Your task to perform on an android device: Open the calendar and show me this week's events Image 0: 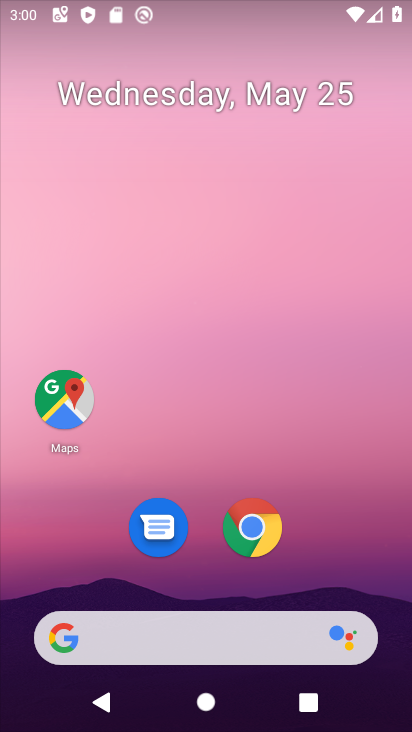
Step 0: click (308, 7)
Your task to perform on an android device: Open the calendar and show me this week's events Image 1: 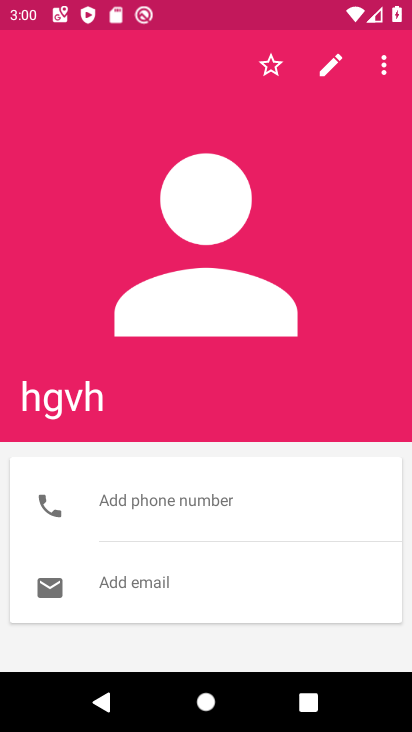
Step 1: press home button
Your task to perform on an android device: Open the calendar and show me this week's events Image 2: 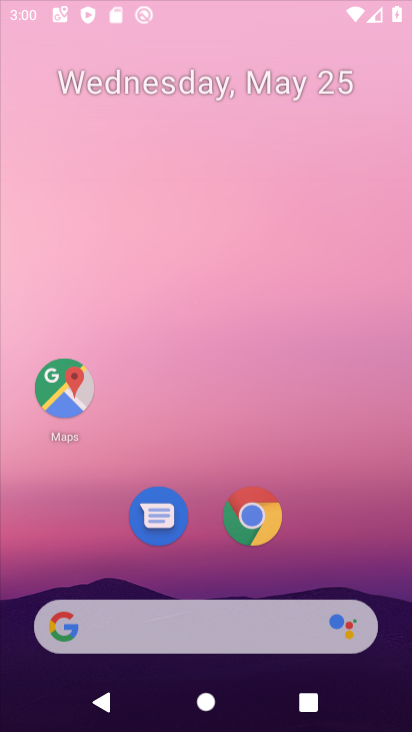
Step 2: drag from (213, 541) to (272, 83)
Your task to perform on an android device: Open the calendar and show me this week's events Image 3: 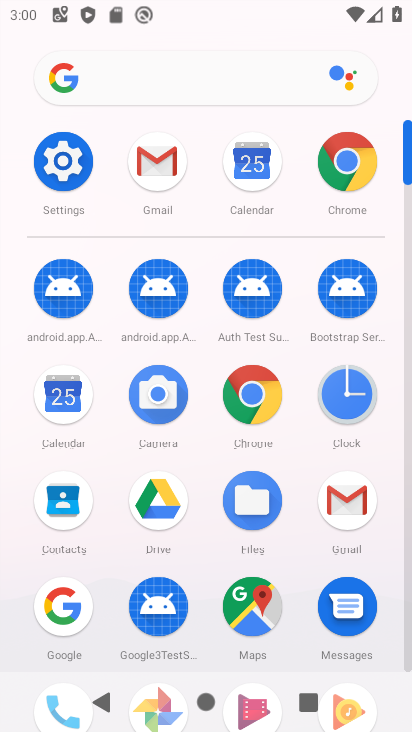
Step 3: click (255, 159)
Your task to perform on an android device: Open the calendar and show me this week's events Image 4: 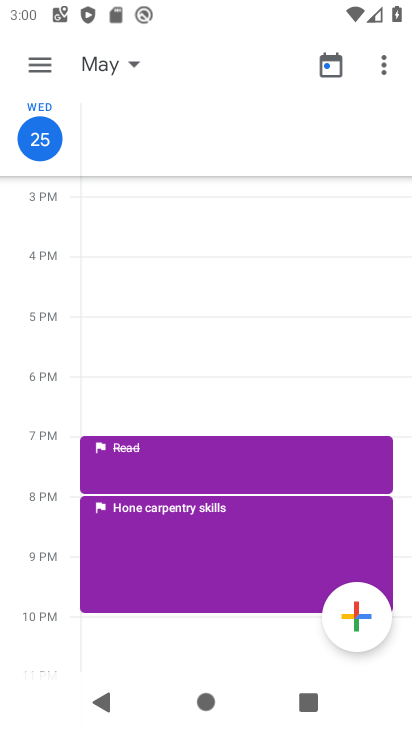
Step 4: press back button
Your task to perform on an android device: Open the calendar and show me this week's events Image 5: 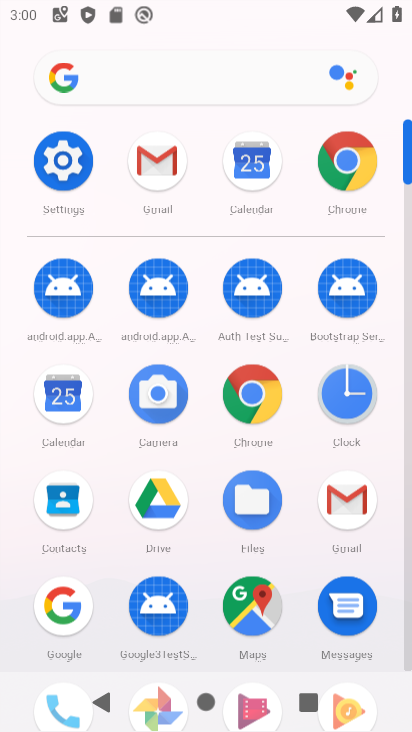
Step 5: press home button
Your task to perform on an android device: Open the calendar and show me this week's events Image 6: 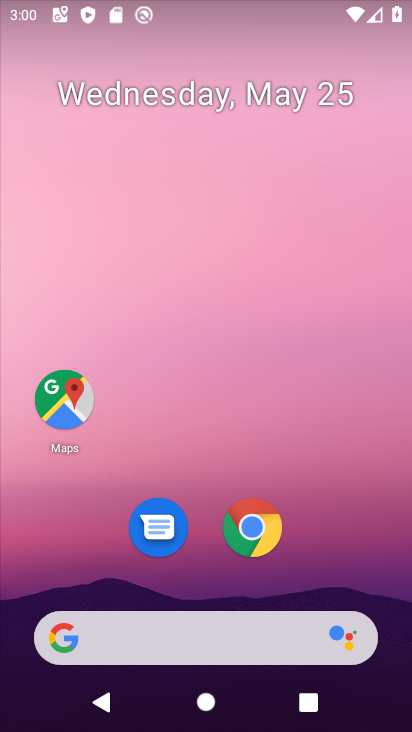
Step 6: drag from (192, 561) to (222, 17)
Your task to perform on an android device: Open the calendar and show me this week's events Image 7: 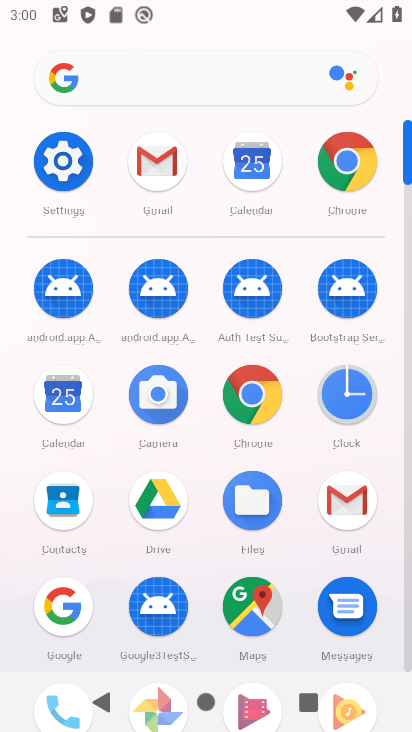
Step 7: click (50, 407)
Your task to perform on an android device: Open the calendar and show me this week's events Image 8: 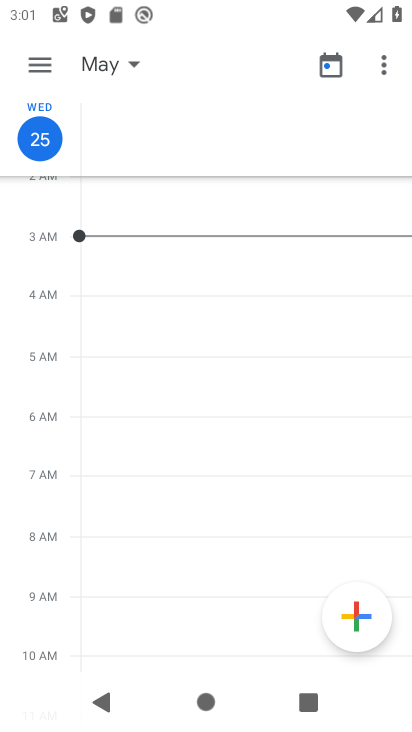
Step 8: drag from (147, 408) to (233, 517)
Your task to perform on an android device: Open the calendar and show me this week's events Image 9: 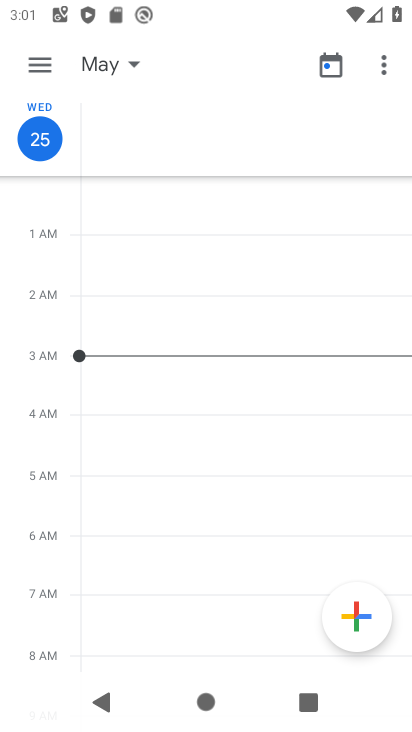
Step 9: click (114, 59)
Your task to perform on an android device: Open the calendar and show me this week's events Image 10: 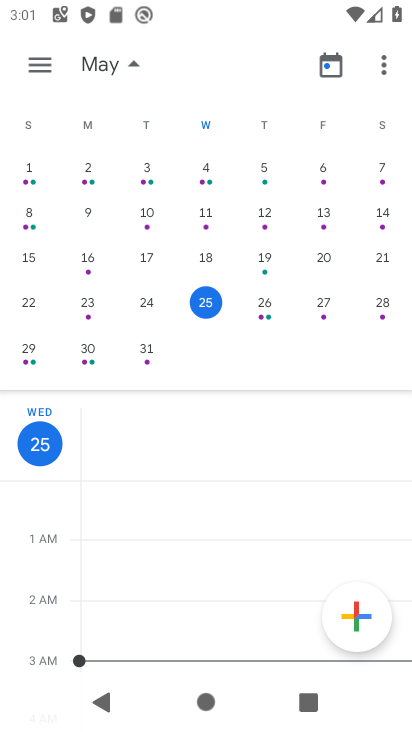
Step 10: click (265, 305)
Your task to perform on an android device: Open the calendar and show me this week's events Image 11: 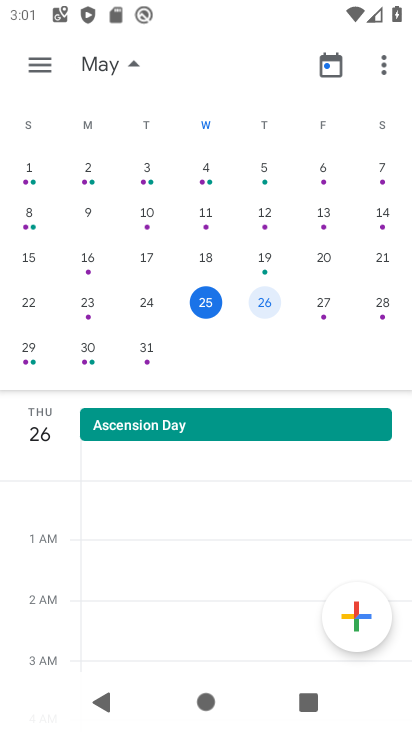
Step 11: task complete